Your task to perform on an android device: Open the calendar app, open the side menu, and click the "Day" option Image 0: 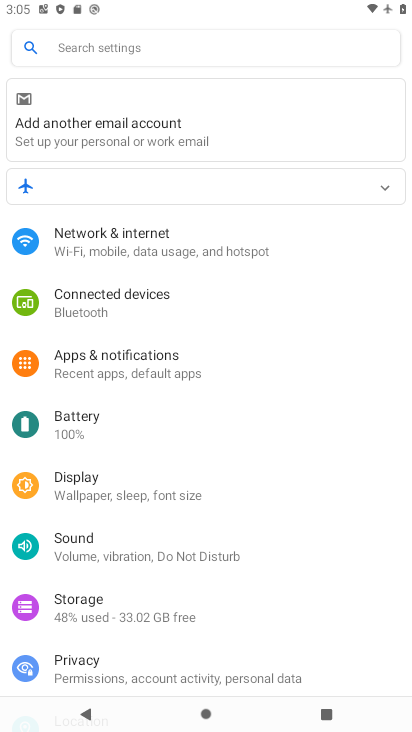
Step 0: press home button
Your task to perform on an android device: Open the calendar app, open the side menu, and click the "Day" option Image 1: 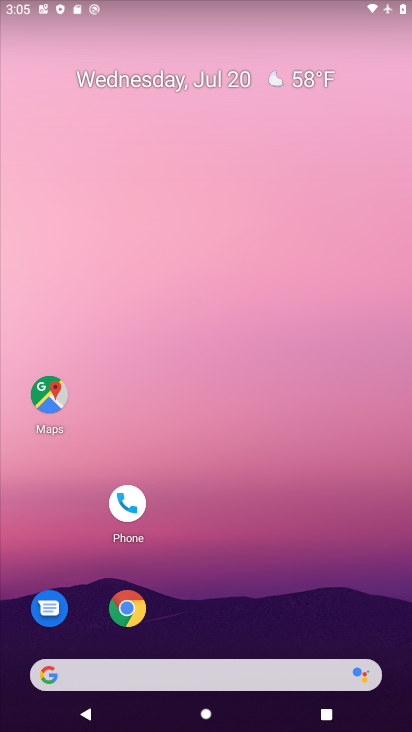
Step 1: drag from (254, 609) to (229, 70)
Your task to perform on an android device: Open the calendar app, open the side menu, and click the "Day" option Image 2: 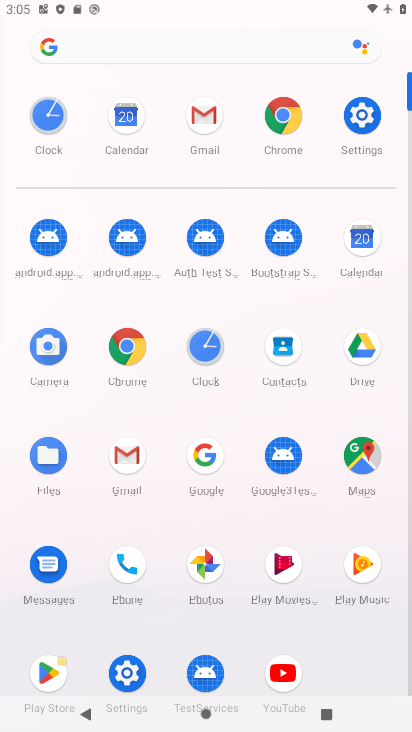
Step 2: click (371, 240)
Your task to perform on an android device: Open the calendar app, open the side menu, and click the "Day" option Image 3: 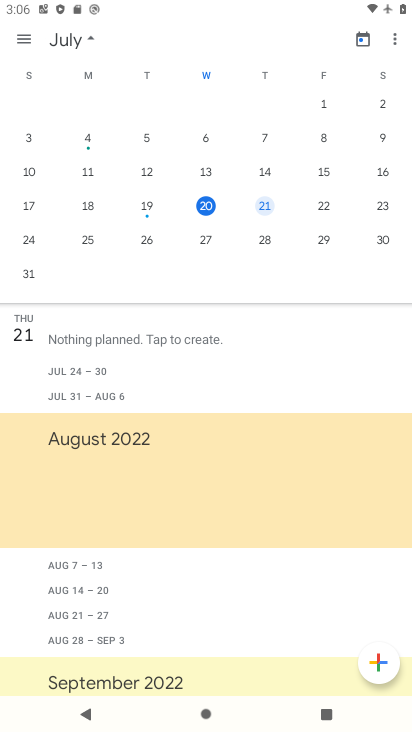
Step 3: click (29, 35)
Your task to perform on an android device: Open the calendar app, open the side menu, and click the "Day" option Image 4: 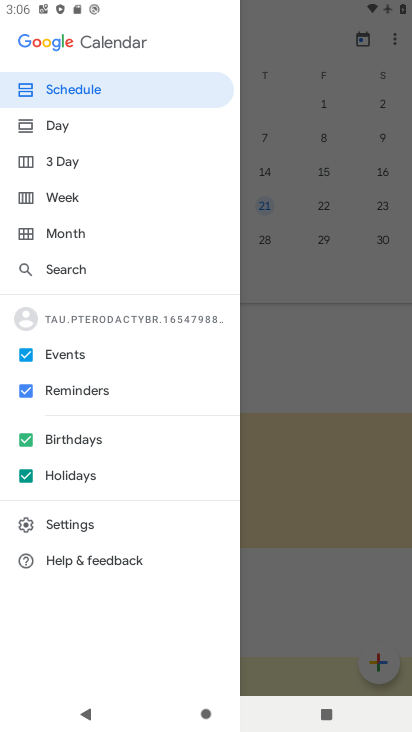
Step 4: click (71, 132)
Your task to perform on an android device: Open the calendar app, open the side menu, and click the "Day" option Image 5: 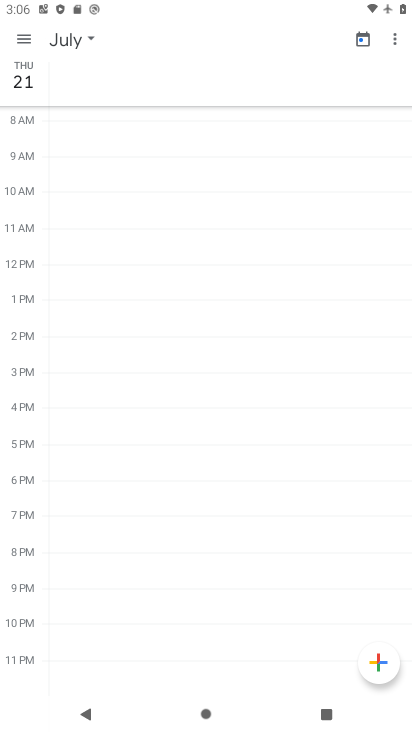
Step 5: task complete